Your task to perform on an android device: turn off data saver in the chrome app Image 0: 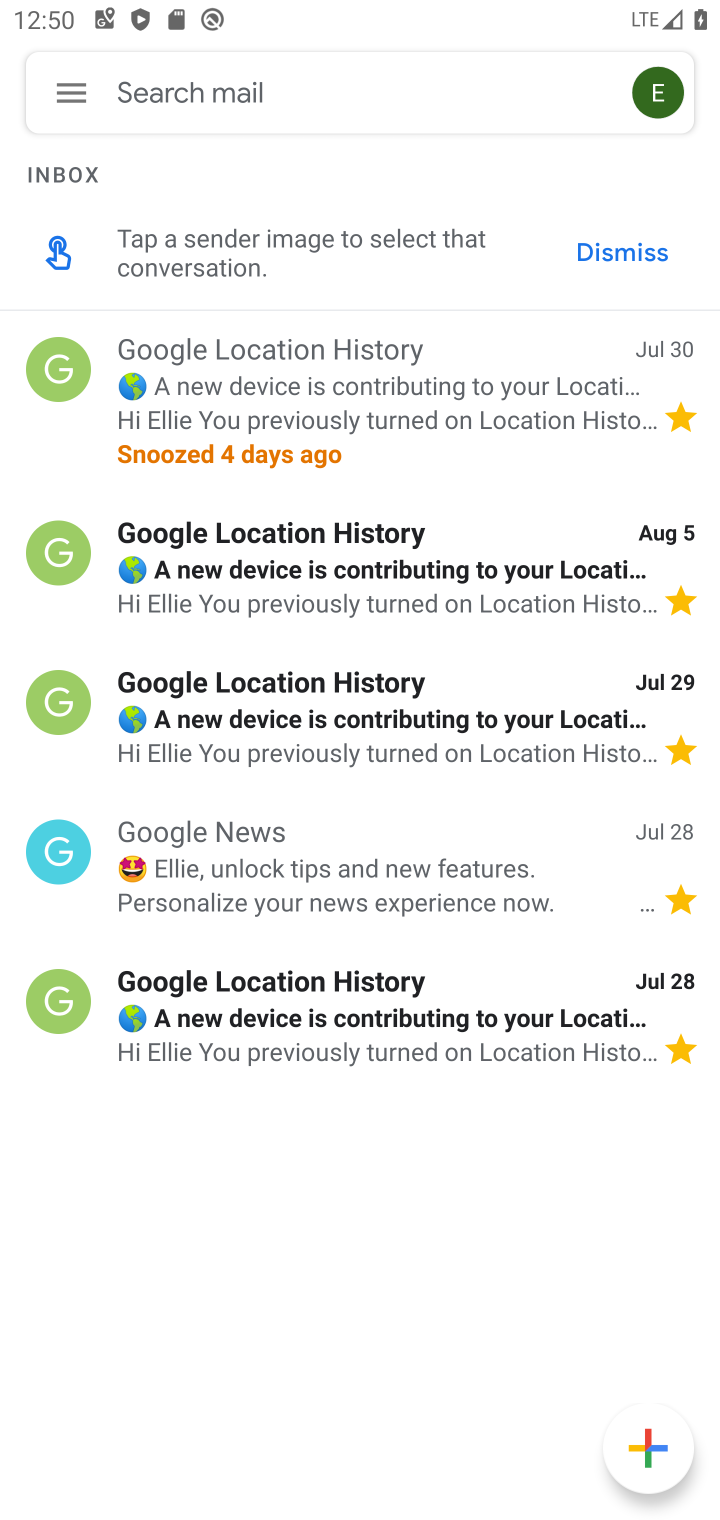
Step 0: press back button
Your task to perform on an android device: turn off data saver in the chrome app Image 1: 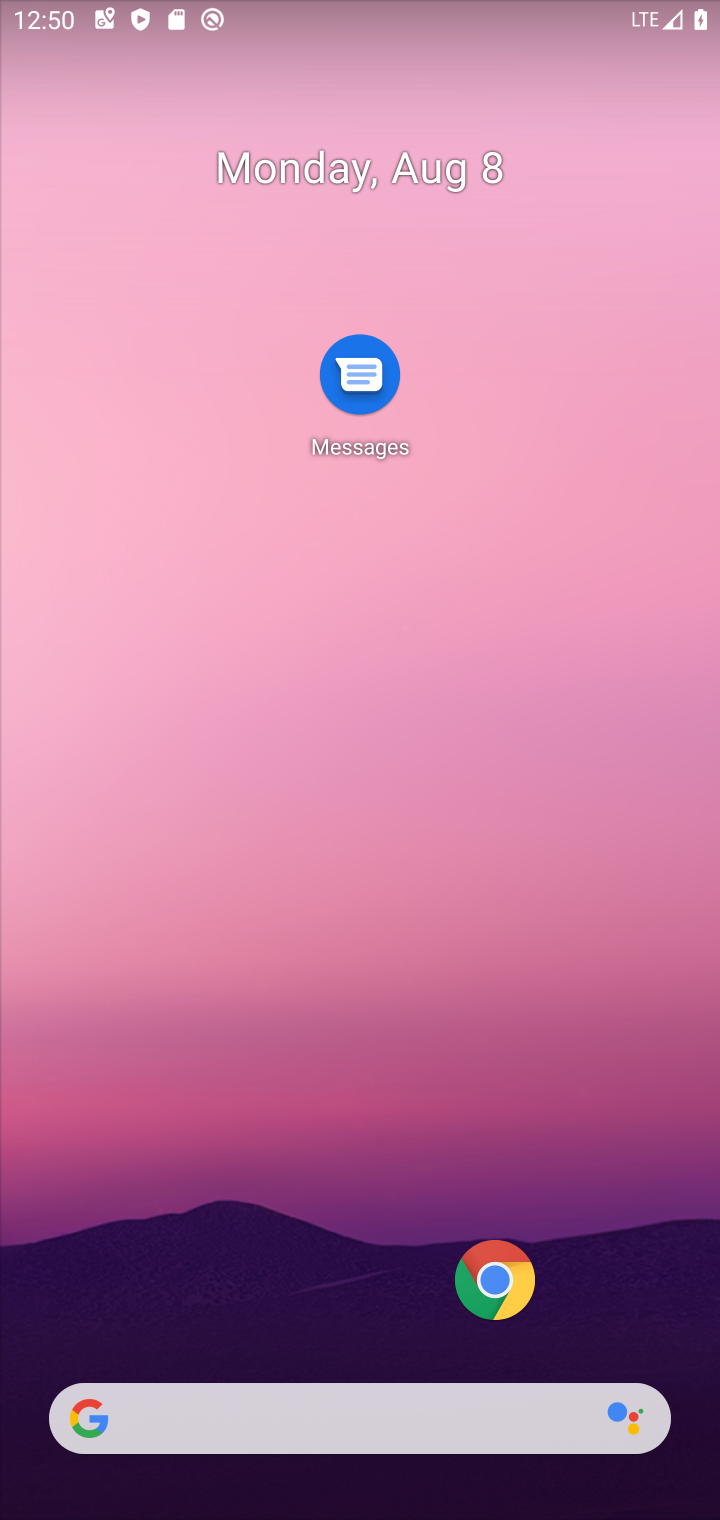
Step 1: click (487, 1280)
Your task to perform on an android device: turn off data saver in the chrome app Image 2: 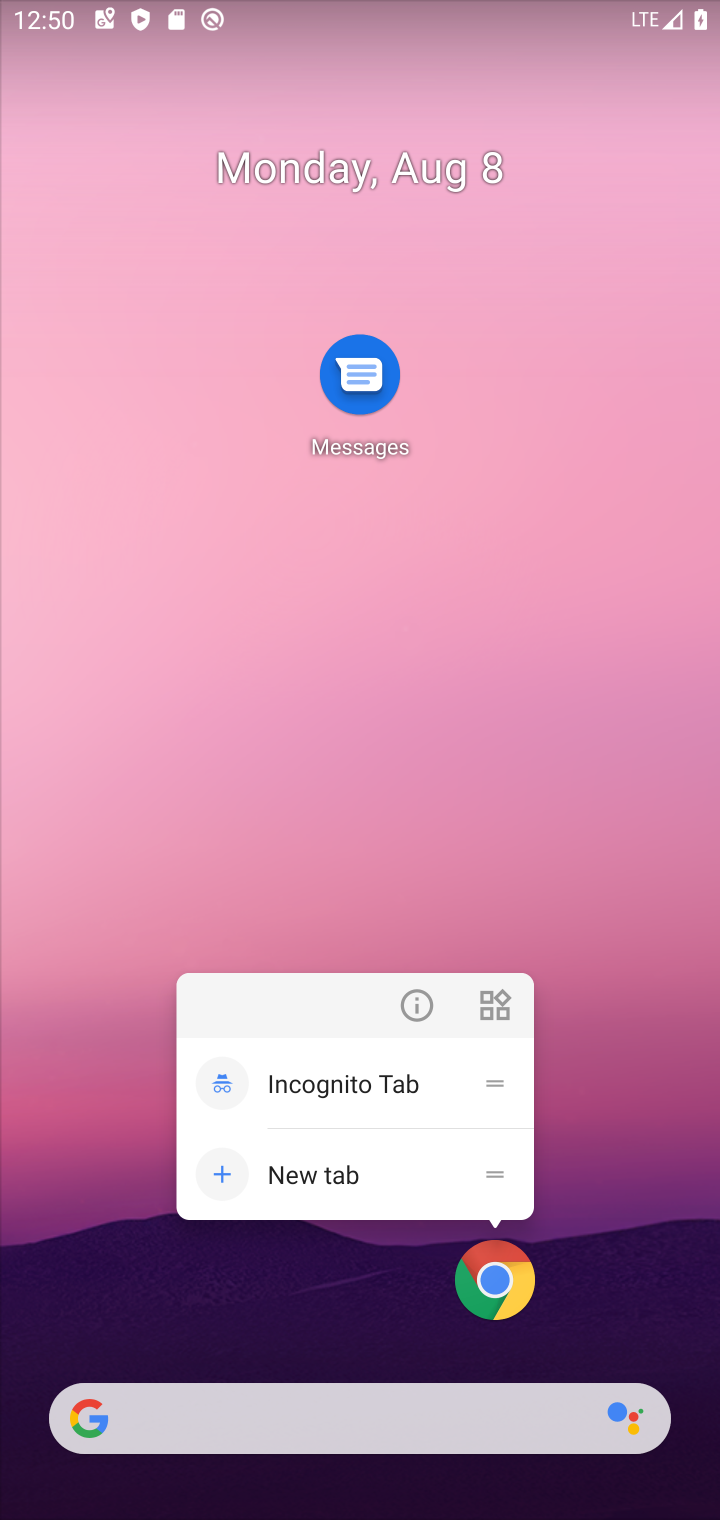
Step 2: click (496, 1283)
Your task to perform on an android device: turn off data saver in the chrome app Image 3: 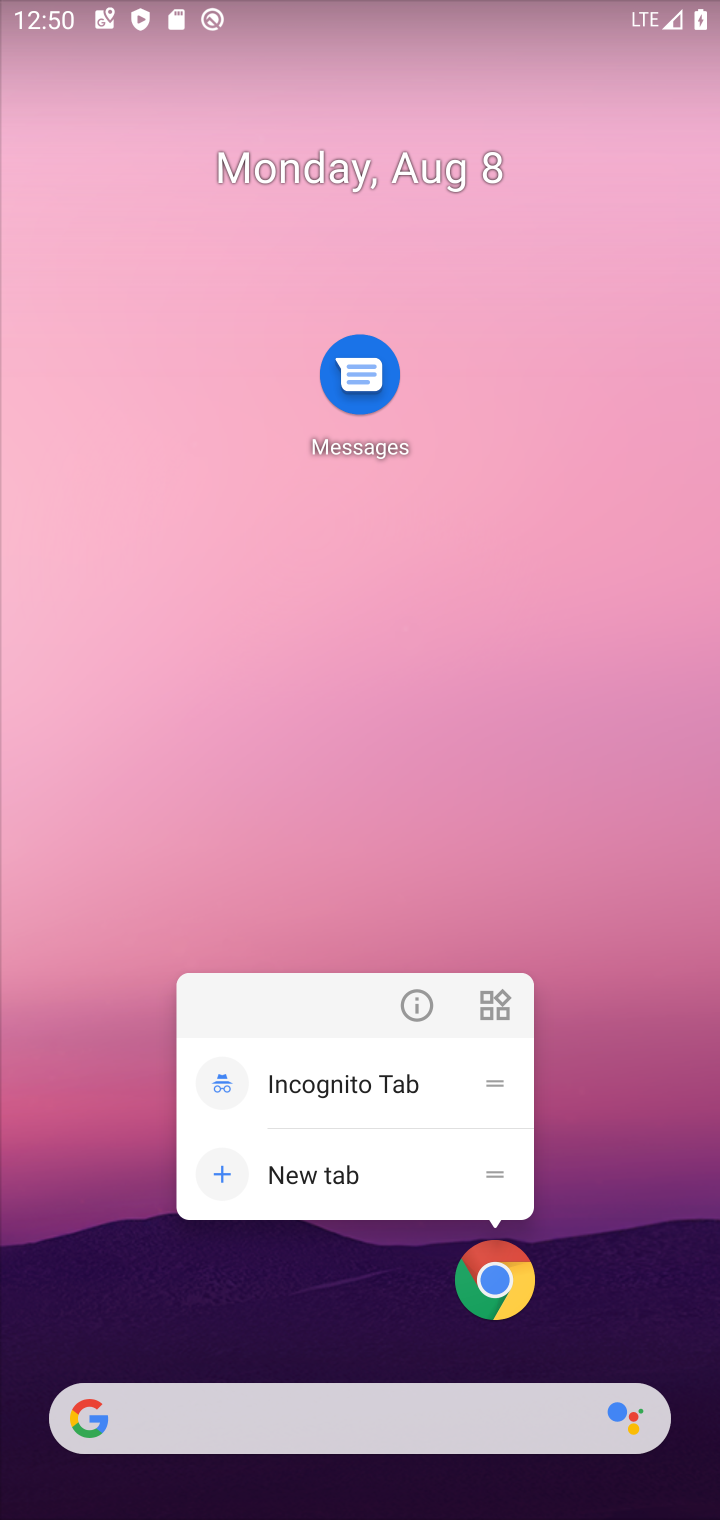
Step 3: click (510, 1267)
Your task to perform on an android device: turn off data saver in the chrome app Image 4: 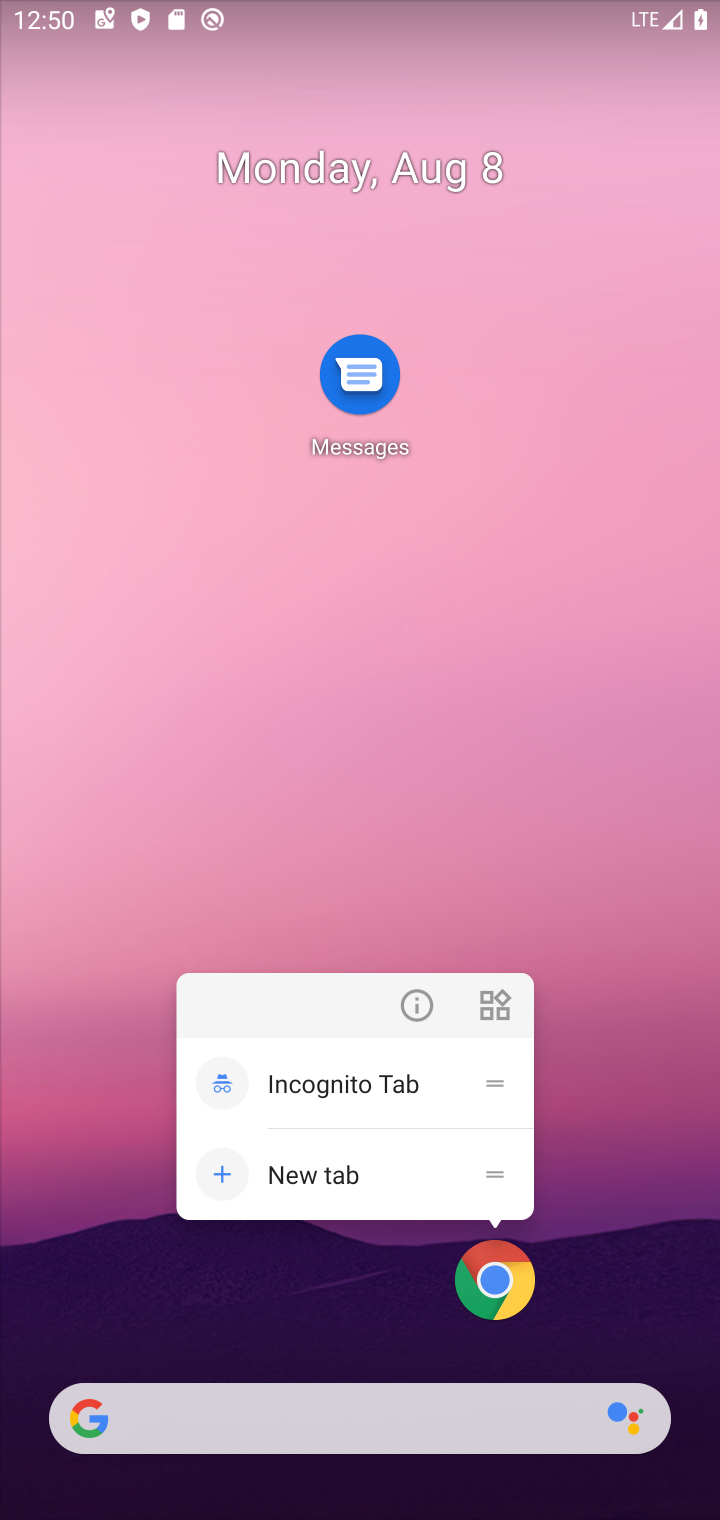
Step 4: click (499, 1270)
Your task to perform on an android device: turn off data saver in the chrome app Image 5: 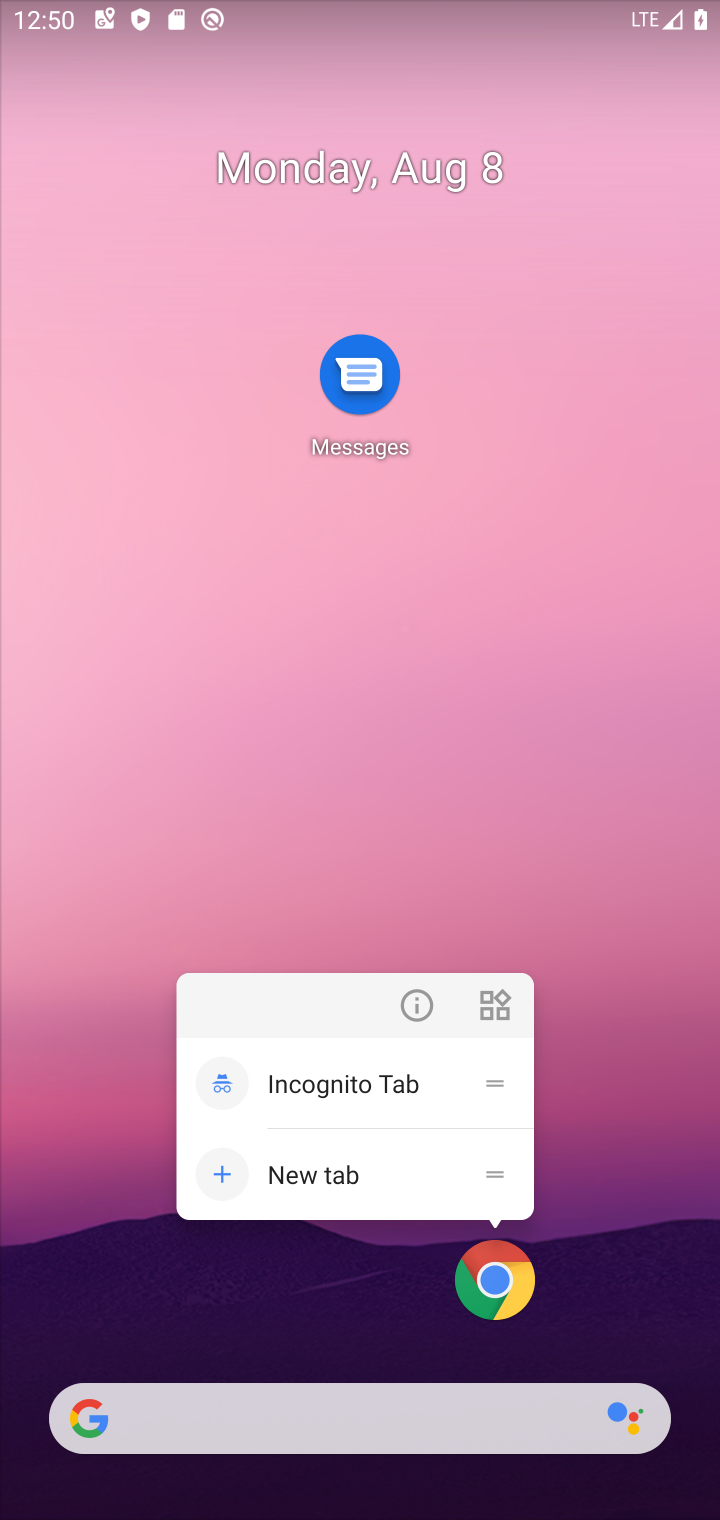
Step 5: click (482, 1271)
Your task to perform on an android device: turn off data saver in the chrome app Image 6: 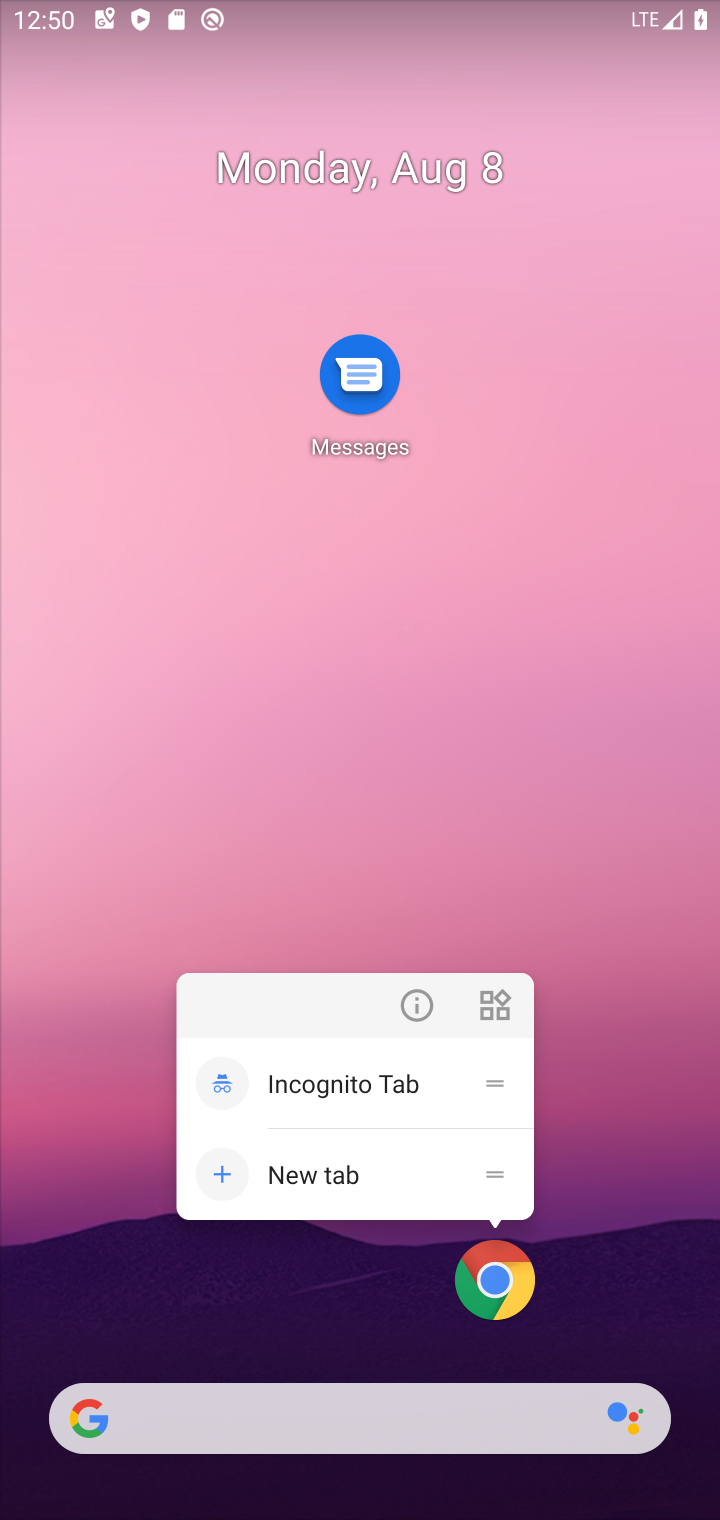
Step 6: click (494, 1281)
Your task to perform on an android device: turn off data saver in the chrome app Image 7: 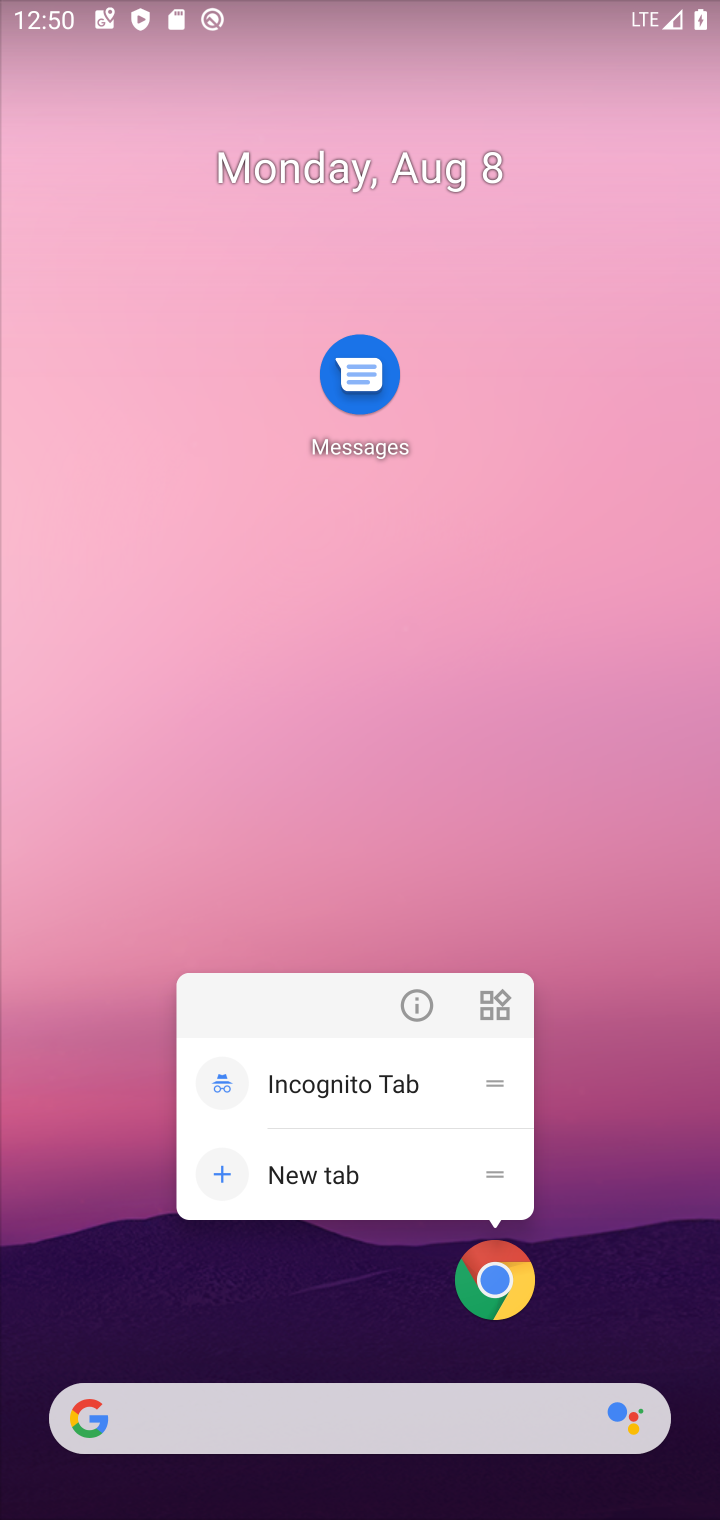
Step 7: click (495, 1284)
Your task to perform on an android device: turn off data saver in the chrome app Image 8: 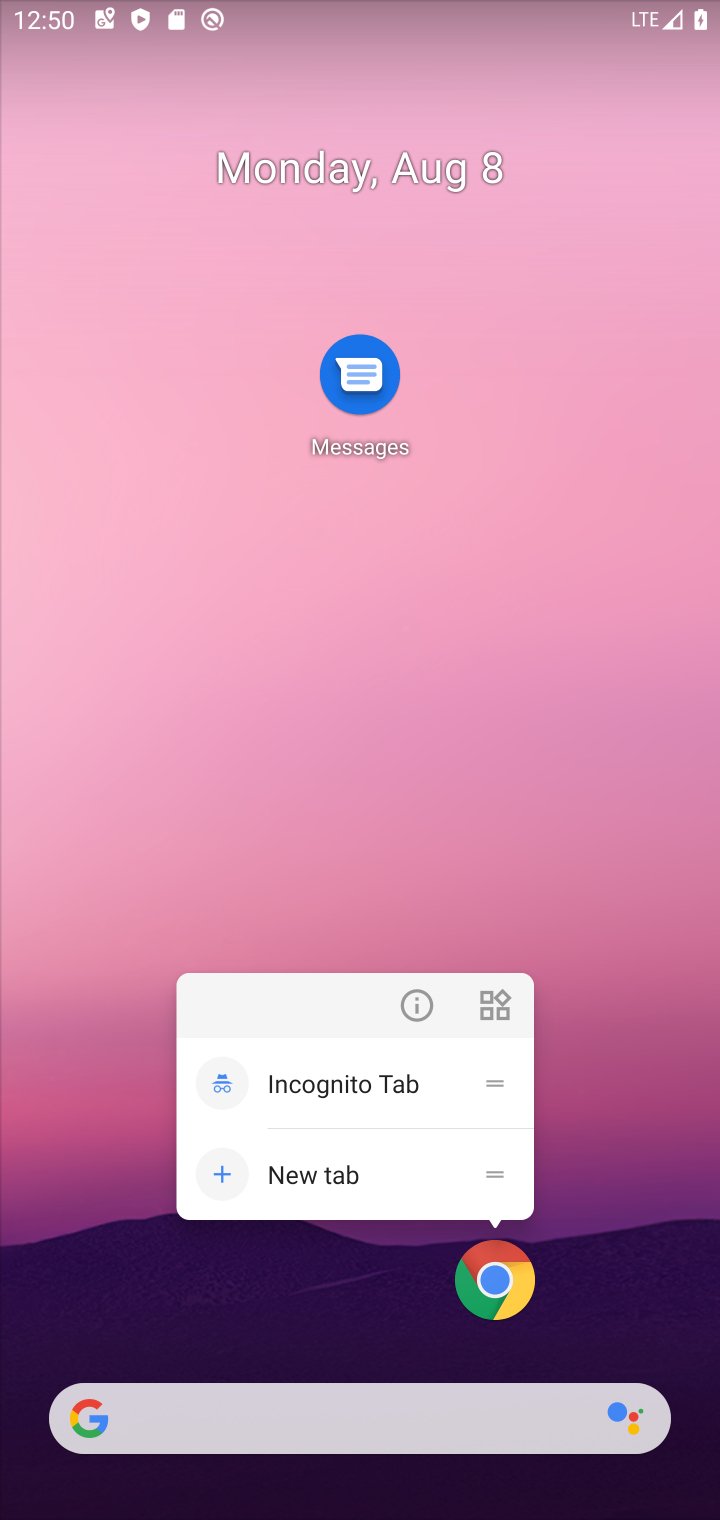
Step 8: click (502, 1270)
Your task to perform on an android device: turn off data saver in the chrome app Image 9: 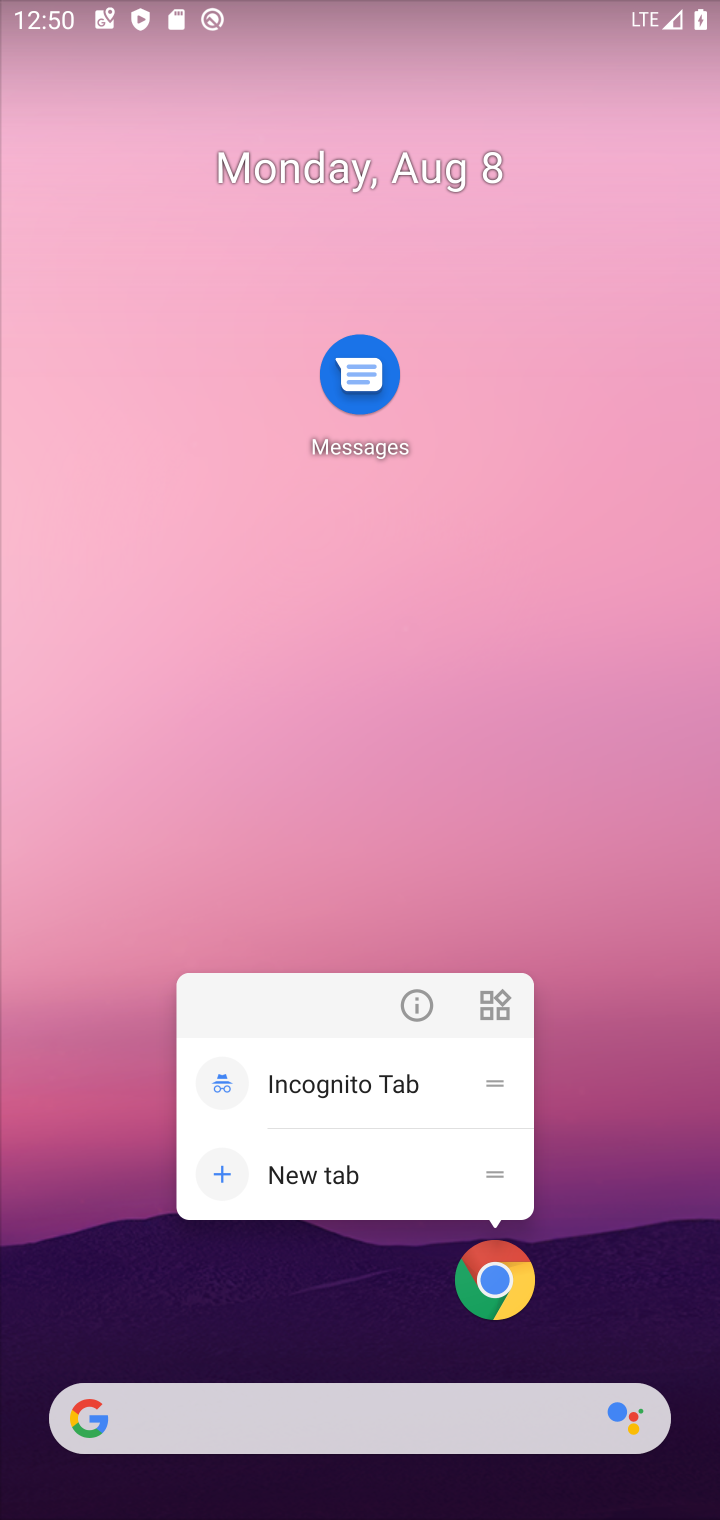
Step 9: click (527, 1308)
Your task to perform on an android device: turn off data saver in the chrome app Image 10: 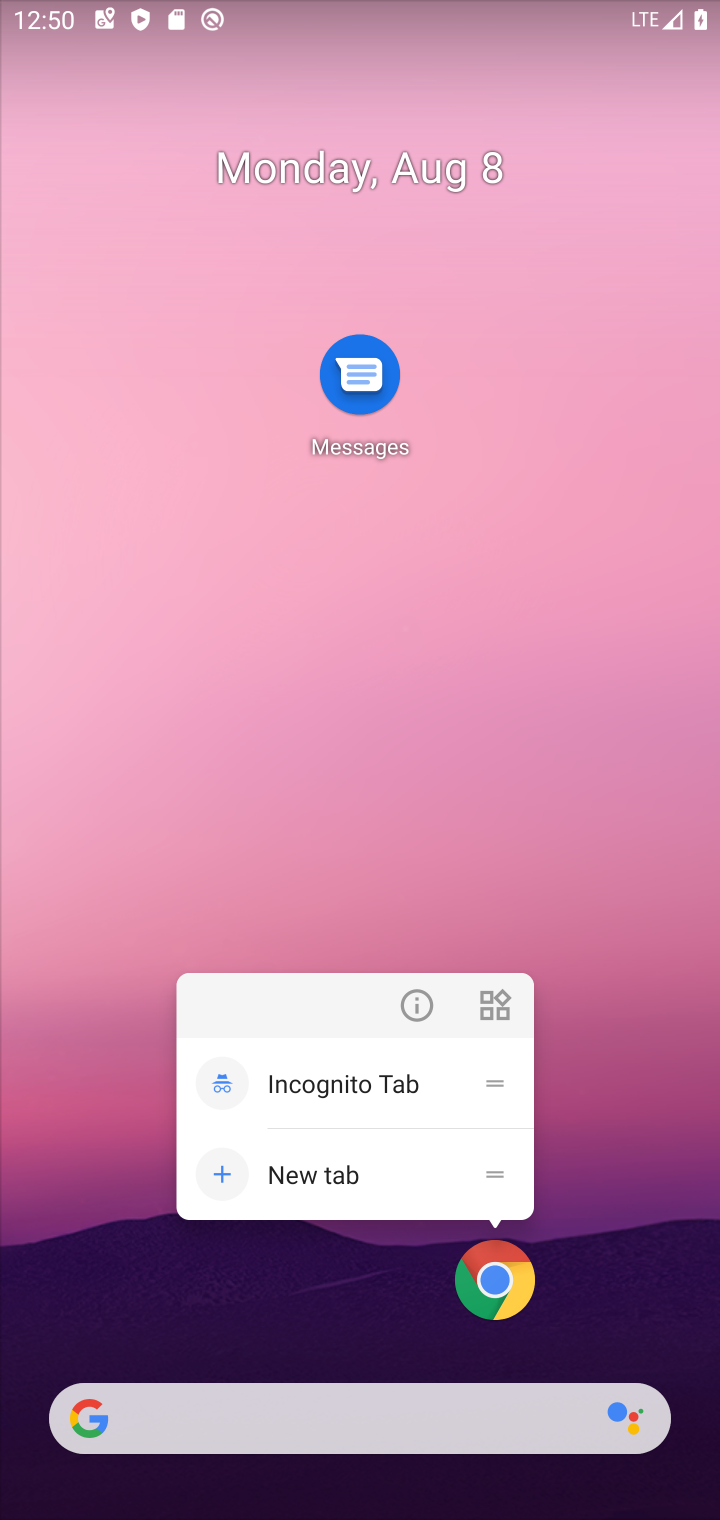
Step 10: click (508, 1230)
Your task to perform on an android device: turn off data saver in the chrome app Image 11: 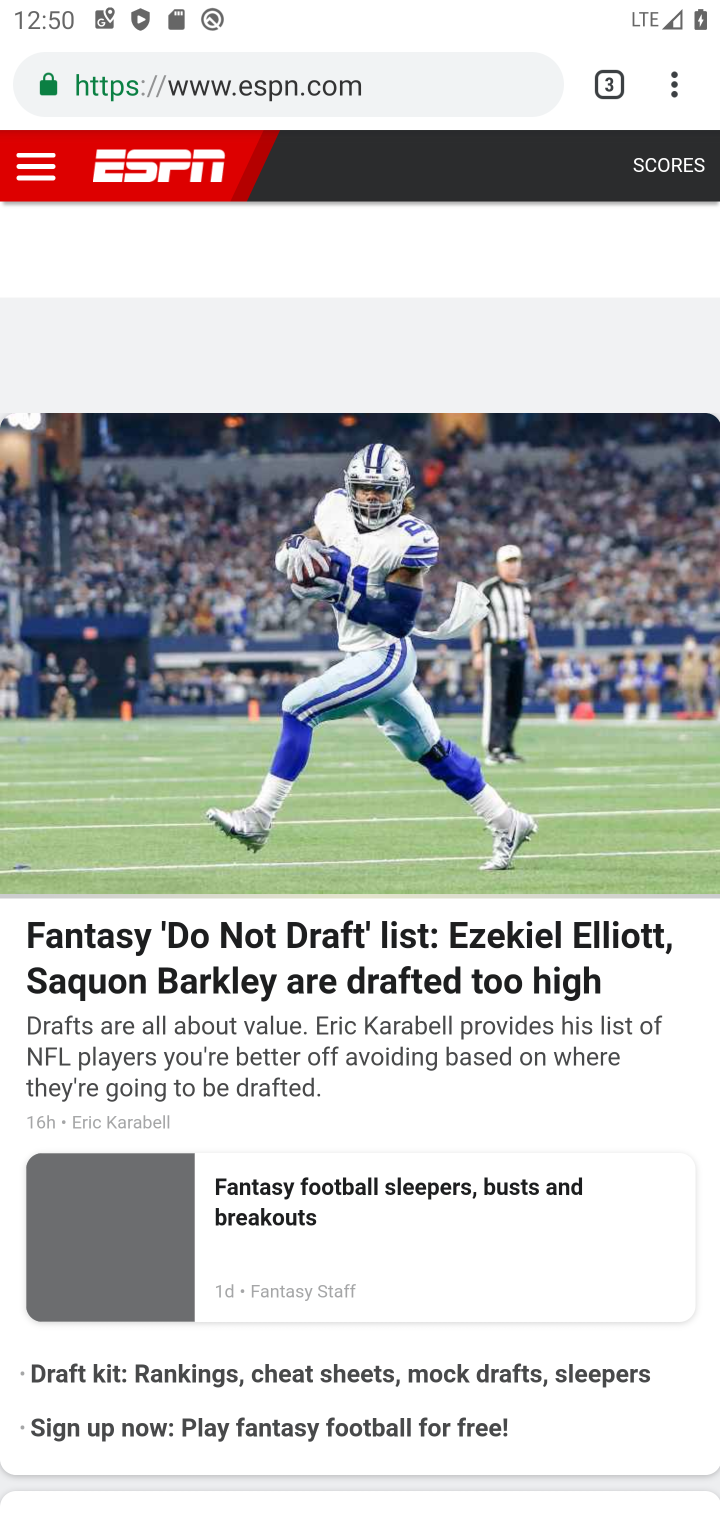
Step 11: drag from (688, 93) to (415, 1027)
Your task to perform on an android device: turn off data saver in the chrome app Image 12: 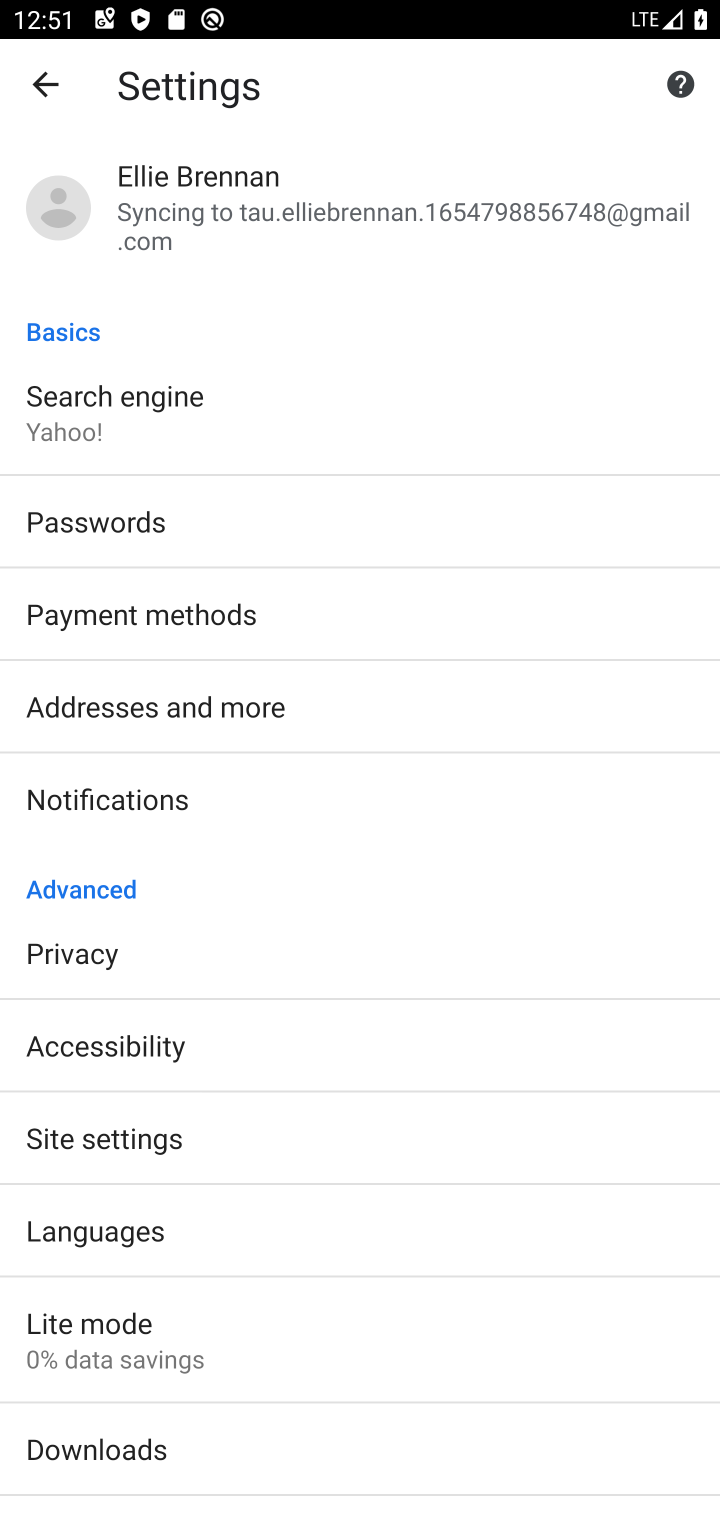
Step 12: click (235, 1350)
Your task to perform on an android device: turn off data saver in the chrome app Image 13: 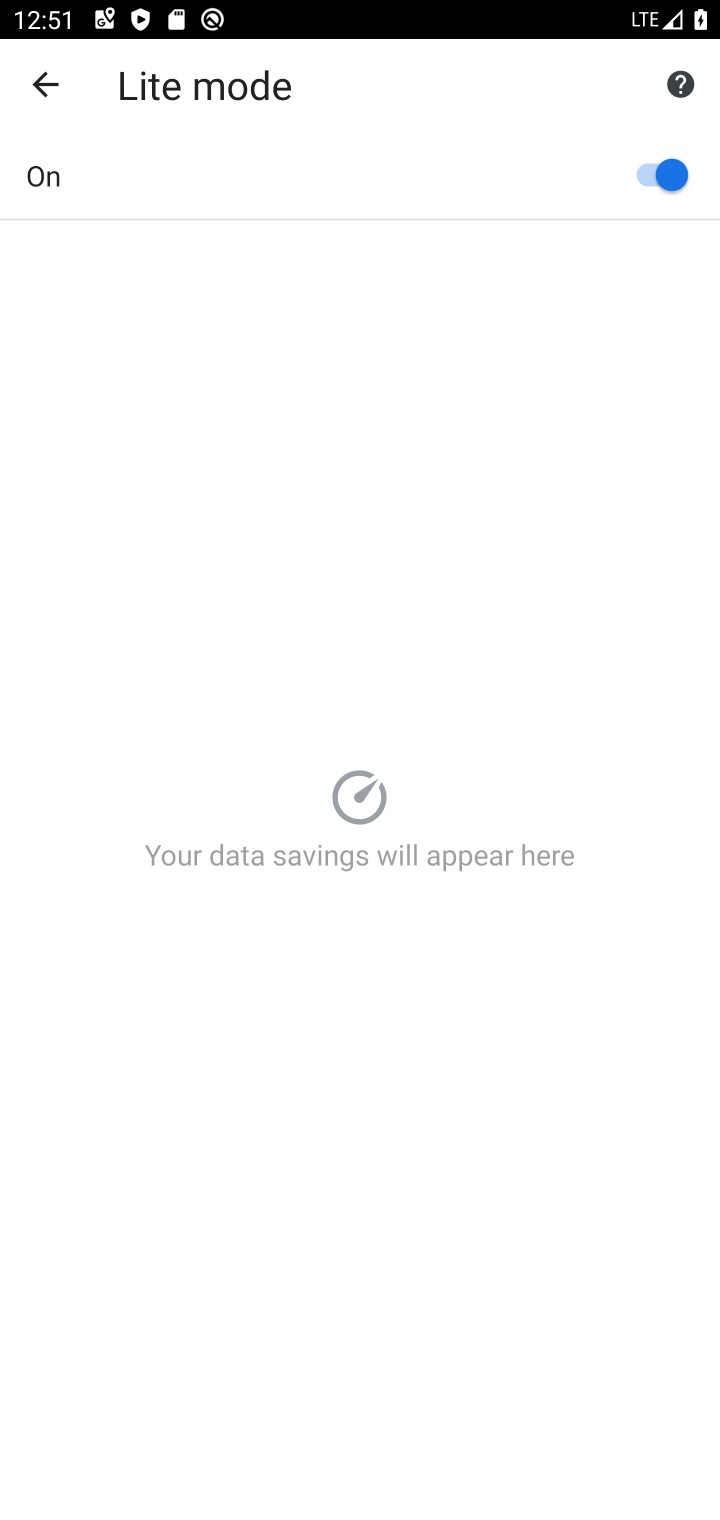
Step 13: click (670, 169)
Your task to perform on an android device: turn off data saver in the chrome app Image 14: 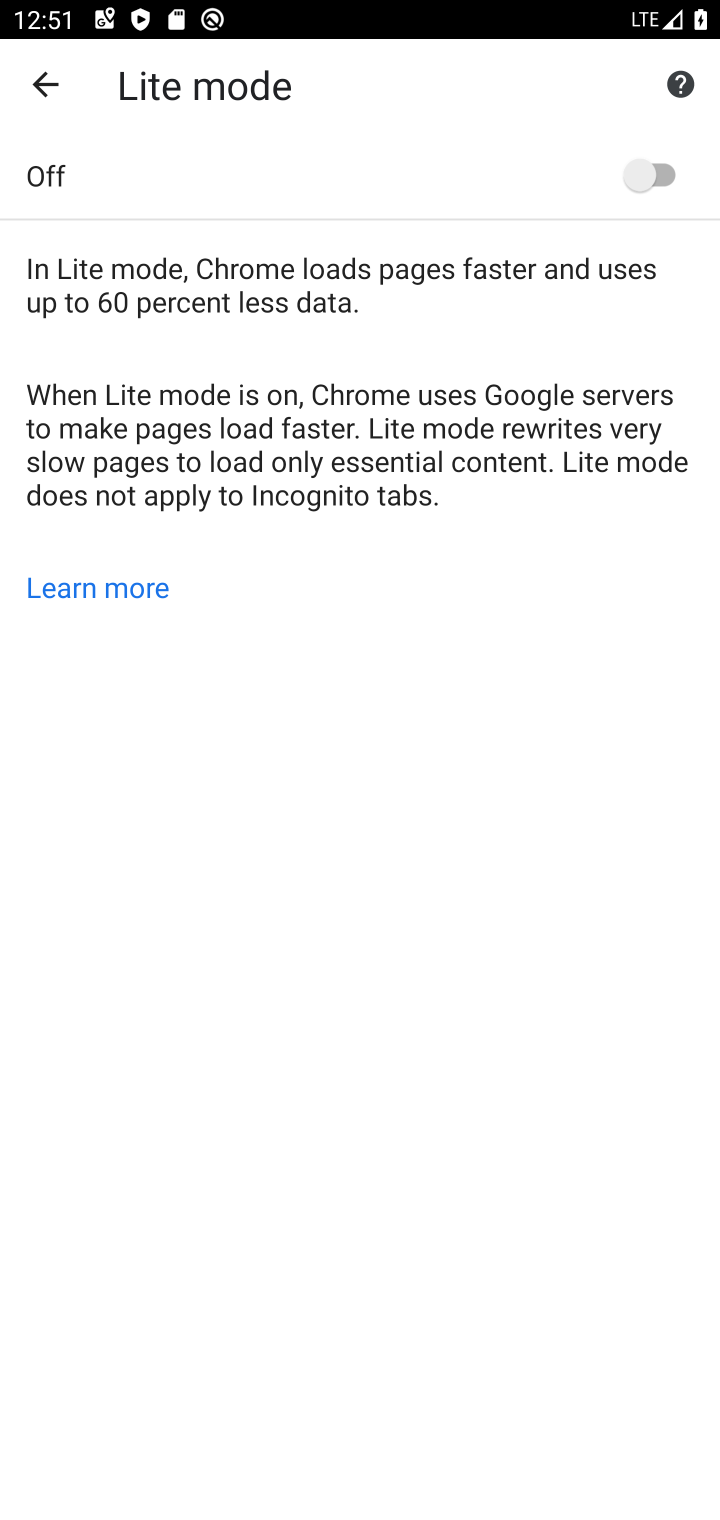
Step 14: task complete